Your task to perform on an android device: Open display settings Image 0: 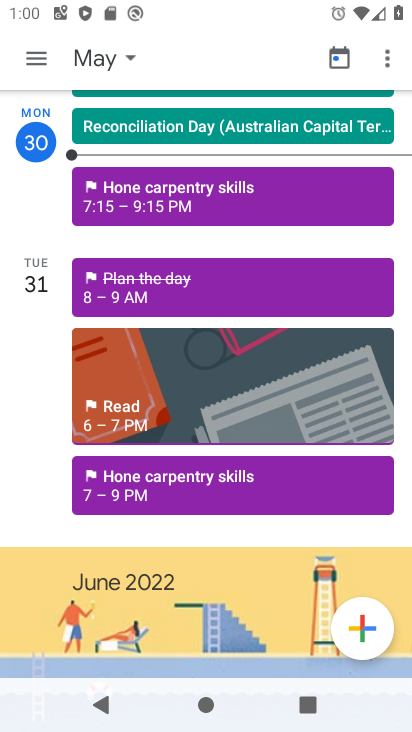
Step 0: press home button
Your task to perform on an android device: Open display settings Image 1: 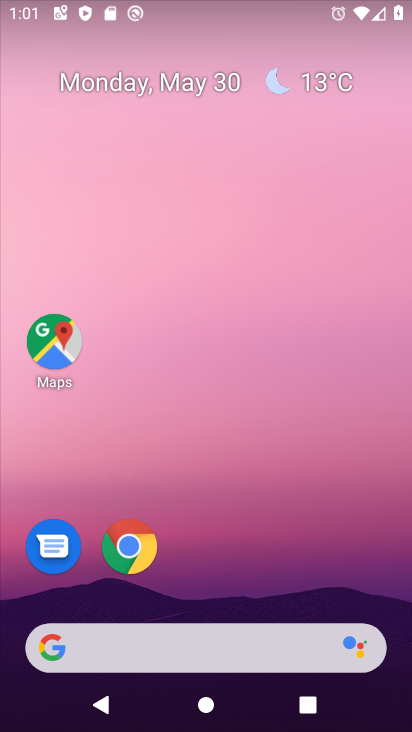
Step 1: drag from (275, 535) to (300, 171)
Your task to perform on an android device: Open display settings Image 2: 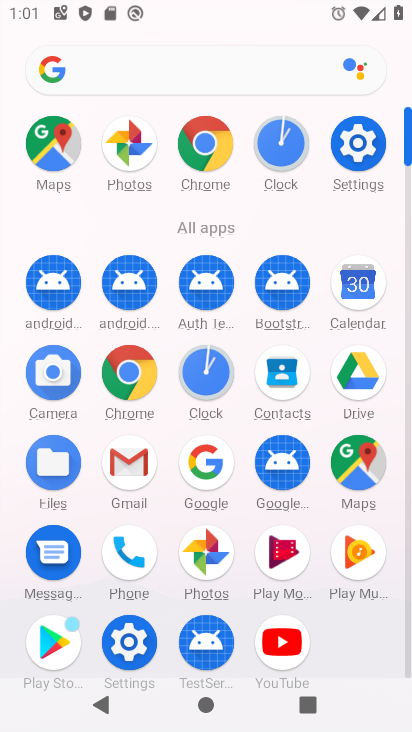
Step 2: click (361, 142)
Your task to perform on an android device: Open display settings Image 3: 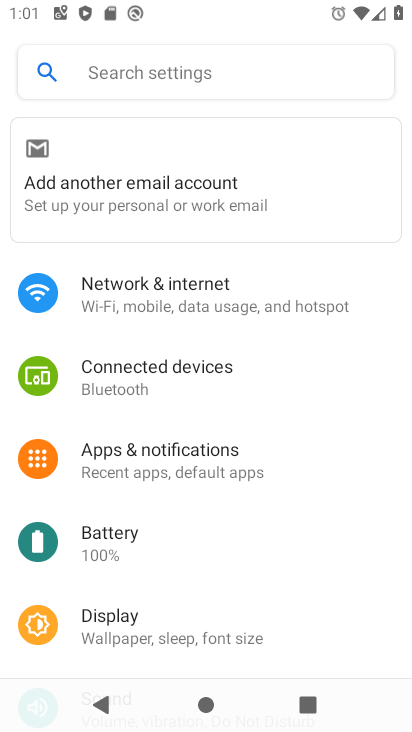
Step 3: click (119, 622)
Your task to perform on an android device: Open display settings Image 4: 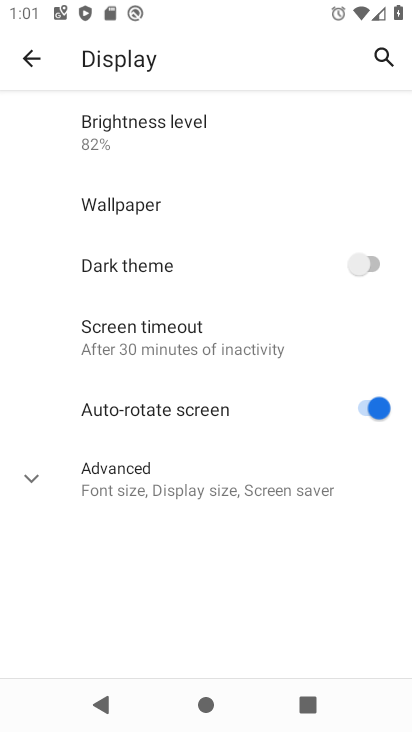
Step 4: task complete